Your task to perform on an android device: turn on the 12-hour format for clock Image 0: 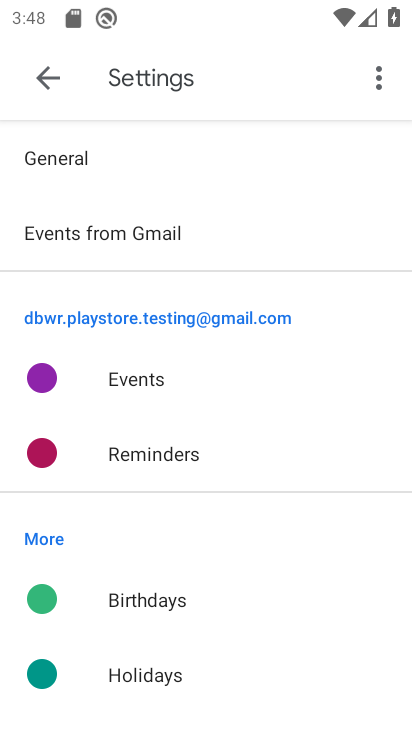
Step 0: press back button
Your task to perform on an android device: turn on the 12-hour format for clock Image 1: 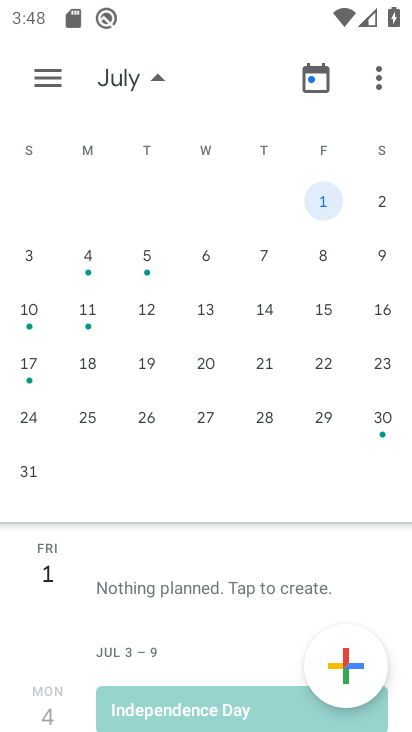
Step 1: press home button
Your task to perform on an android device: turn on the 12-hour format for clock Image 2: 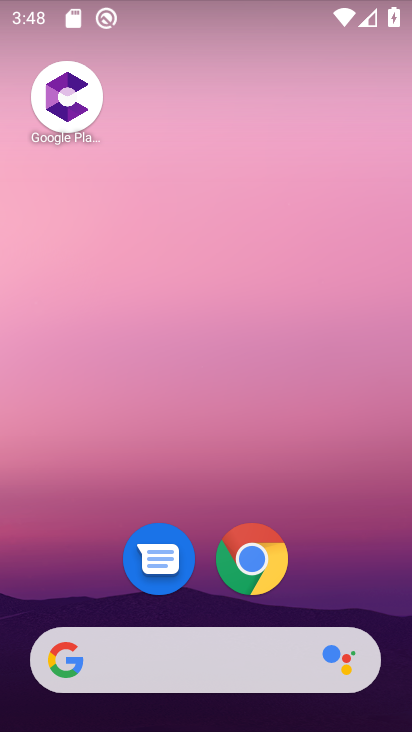
Step 2: drag from (317, 690) to (172, 65)
Your task to perform on an android device: turn on the 12-hour format for clock Image 3: 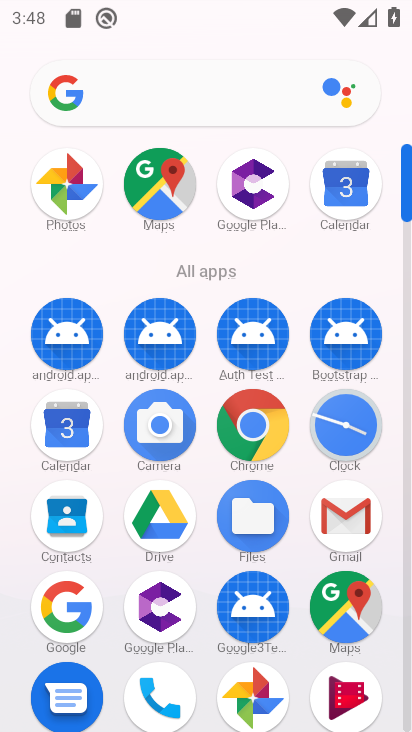
Step 3: click (341, 421)
Your task to perform on an android device: turn on the 12-hour format for clock Image 4: 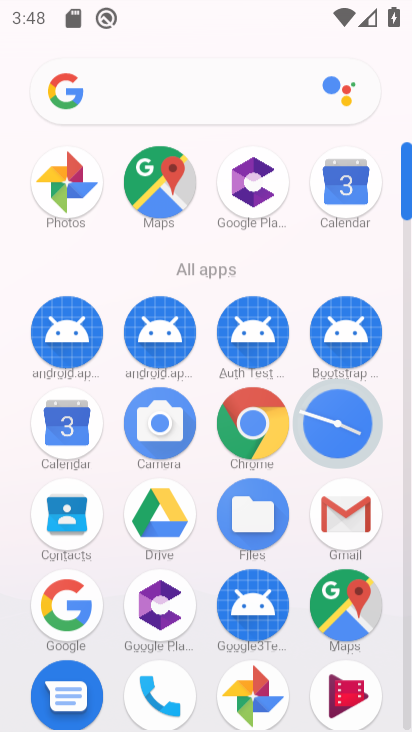
Step 4: click (347, 417)
Your task to perform on an android device: turn on the 12-hour format for clock Image 5: 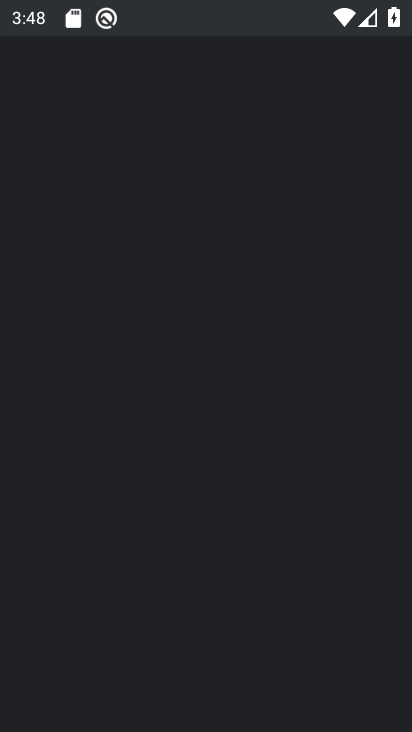
Step 5: click (340, 437)
Your task to perform on an android device: turn on the 12-hour format for clock Image 6: 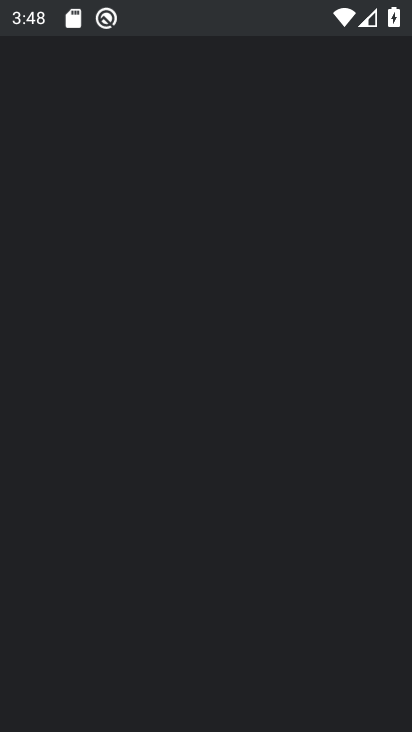
Step 6: click (327, 415)
Your task to perform on an android device: turn on the 12-hour format for clock Image 7: 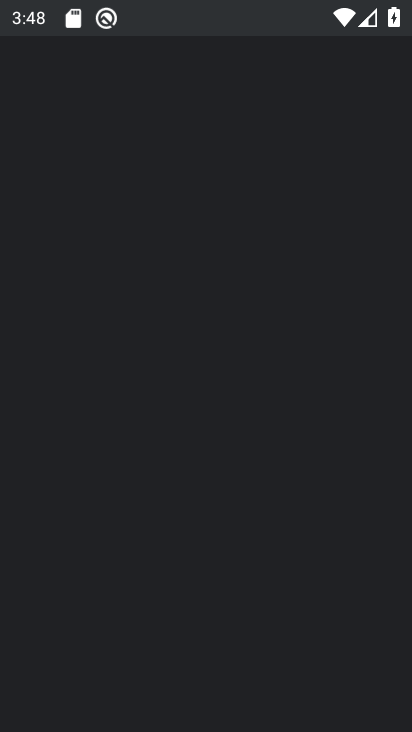
Step 7: click (327, 415)
Your task to perform on an android device: turn on the 12-hour format for clock Image 8: 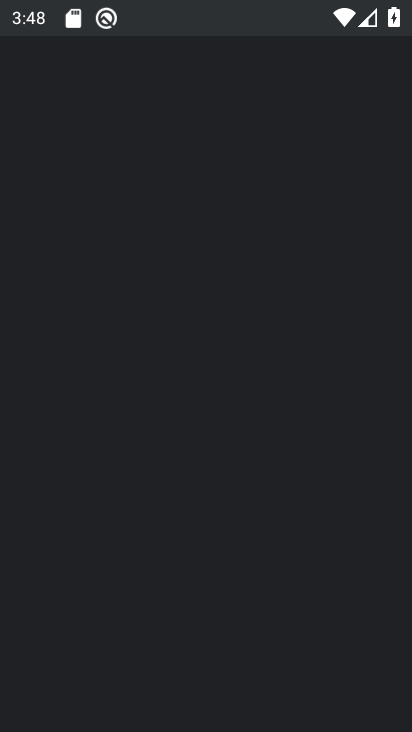
Step 8: click (329, 419)
Your task to perform on an android device: turn on the 12-hour format for clock Image 9: 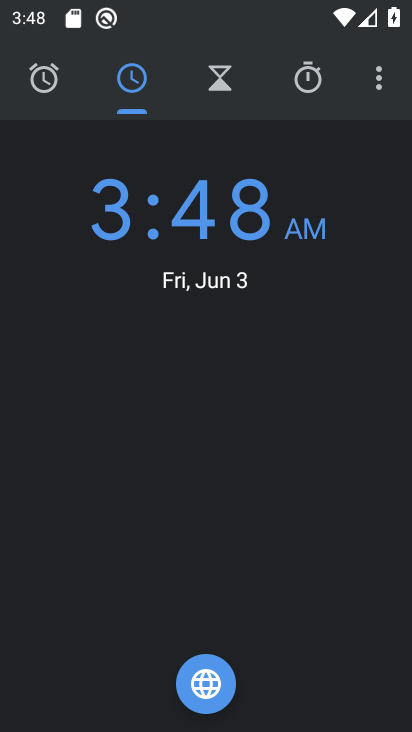
Step 9: click (381, 90)
Your task to perform on an android device: turn on the 12-hour format for clock Image 10: 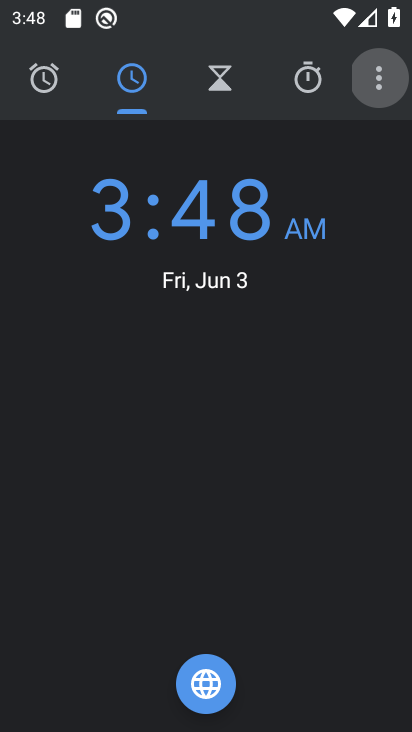
Step 10: click (380, 89)
Your task to perform on an android device: turn on the 12-hour format for clock Image 11: 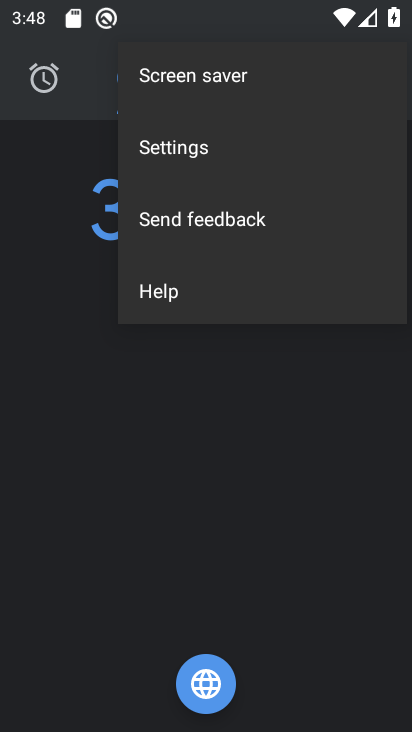
Step 11: click (380, 89)
Your task to perform on an android device: turn on the 12-hour format for clock Image 12: 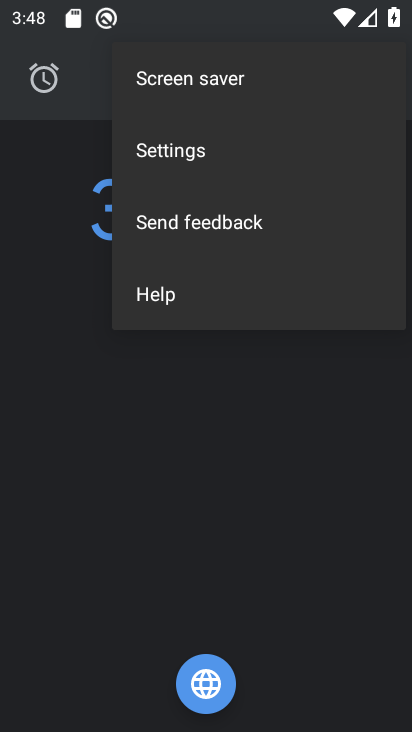
Step 12: drag from (375, 53) to (192, 153)
Your task to perform on an android device: turn on the 12-hour format for clock Image 13: 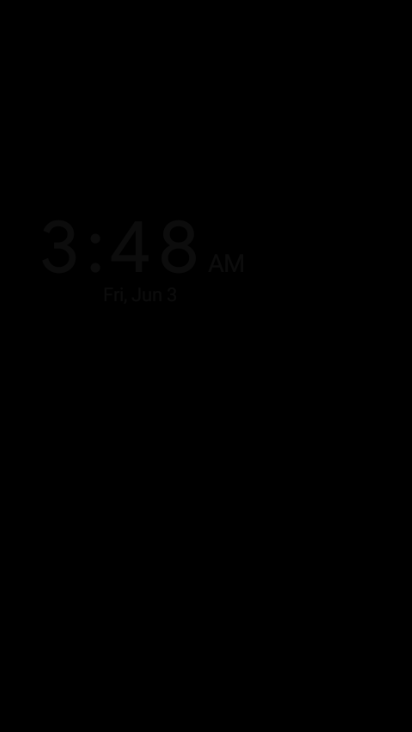
Step 13: press back button
Your task to perform on an android device: turn on the 12-hour format for clock Image 14: 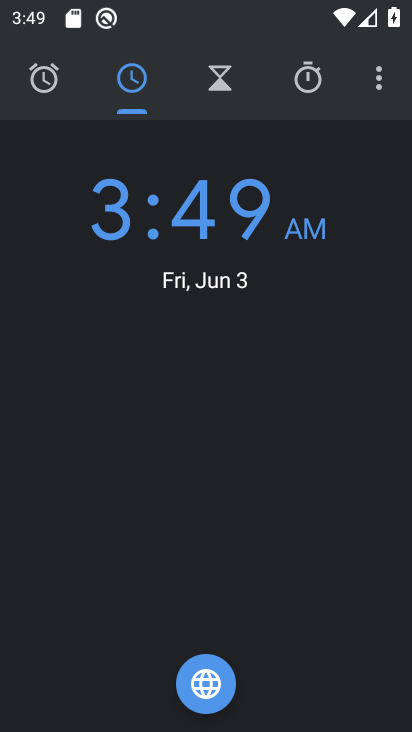
Step 14: click (376, 84)
Your task to perform on an android device: turn on the 12-hour format for clock Image 15: 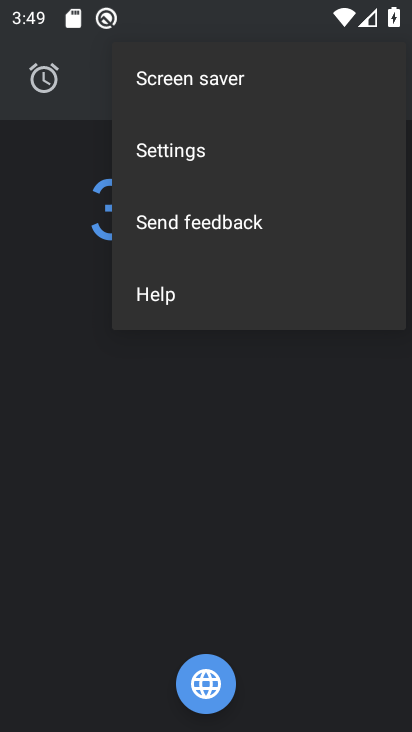
Step 15: click (177, 162)
Your task to perform on an android device: turn on the 12-hour format for clock Image 16: 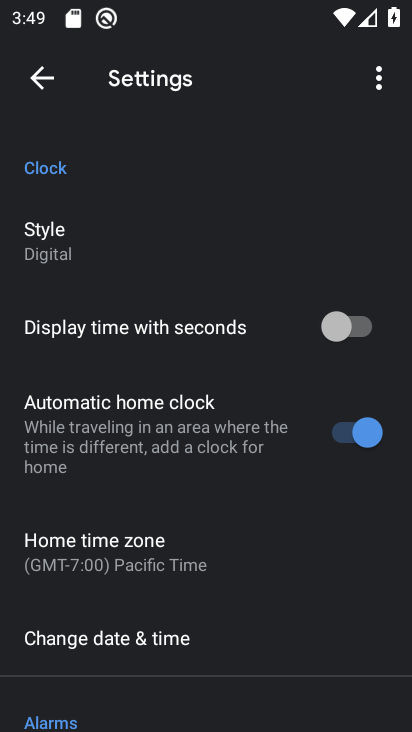
Step 16: drag from (200, 575) to (193, 212)
Your task to perform on an android device: turn on the 12-hour format for clock Image 17: 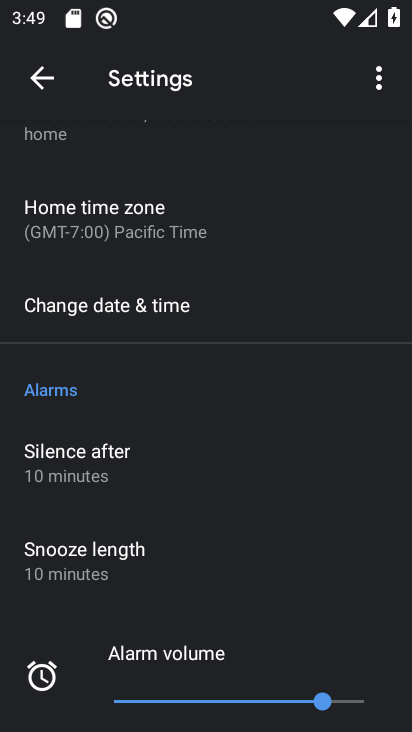
Step 17: click (97, 319)
Your task to perform on an android device: turn on the 12-hour format for clock Image 18: 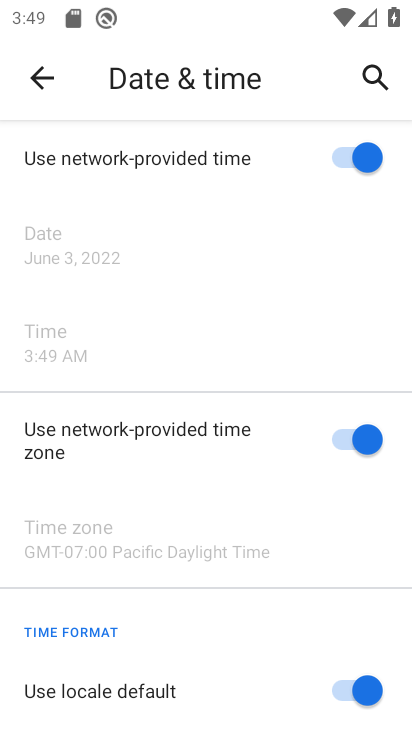
Step 18: task complete